Your task to perform on an android device: Open Google Chrome Image 0: 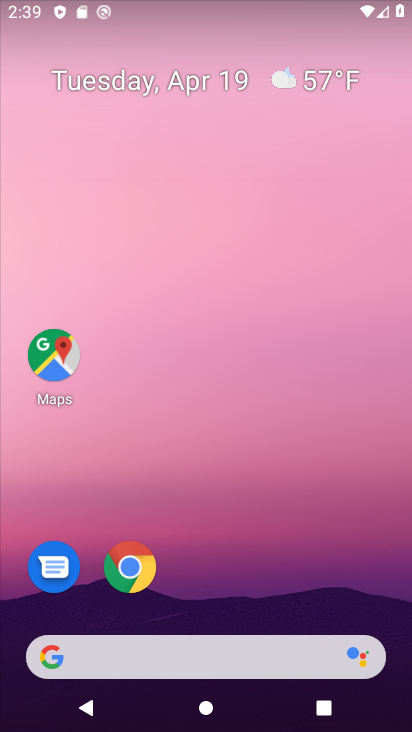
Step 0: drag from (386, 592) to (371, 148)
Your task to perform on an android device: Open Google Chrome Image 1: 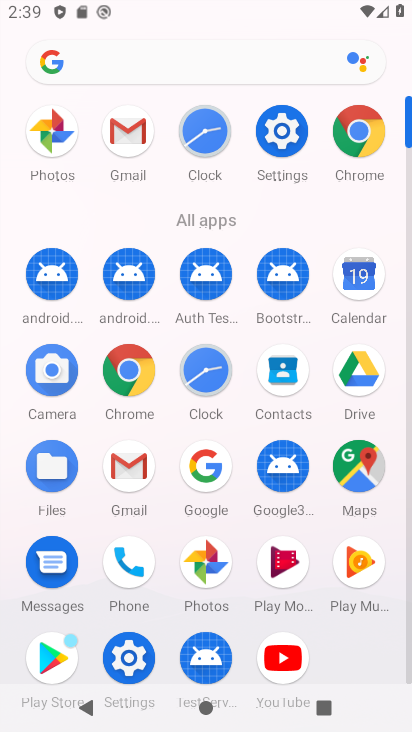
Step 1: click (135, 375)
Your task to perform on an android device: Open Google Chrome Image 2: 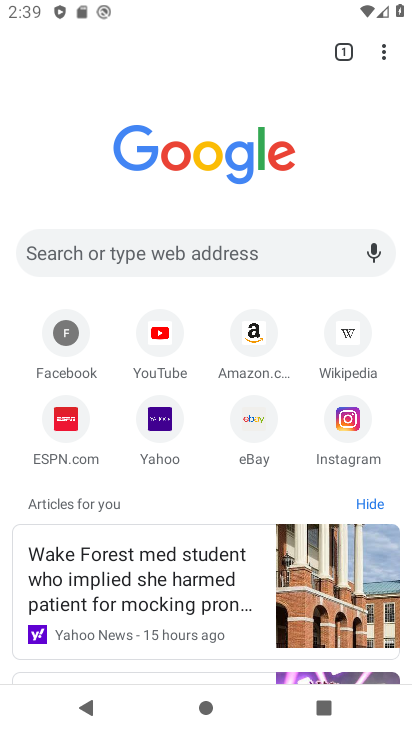
Step 2: task complete